Your task to perform on an android device: see tabs open on other devices in the chrome app Image 0: 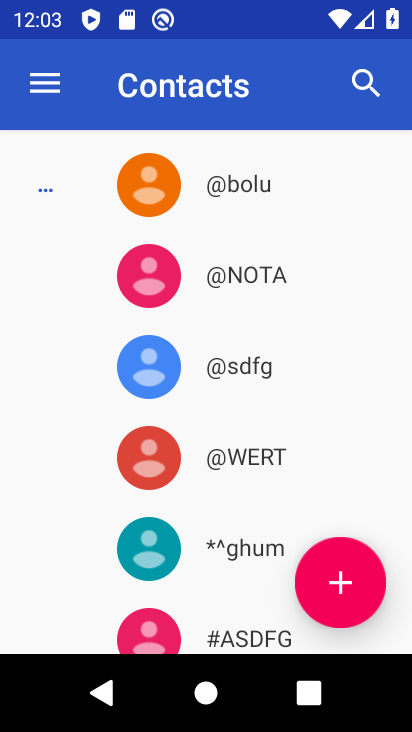
Step 0: press home button
Your task to perform on an android device: see tabs open on other devices in the chrome app Image 1: 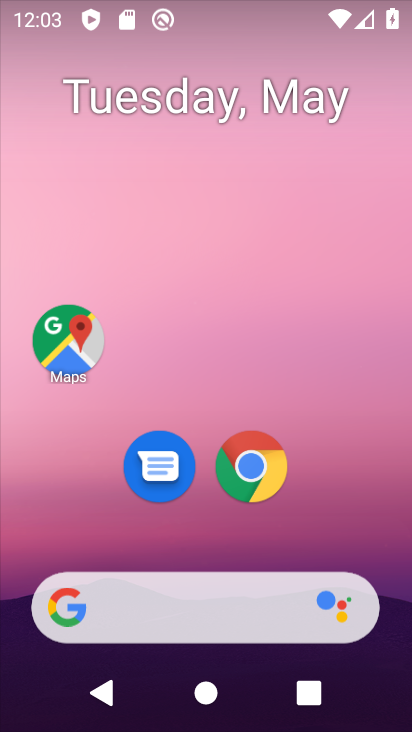
Step 1: click (243, 453)
Your task to perform on an android device: see tabs open on other devices in the chrome app Image 2: 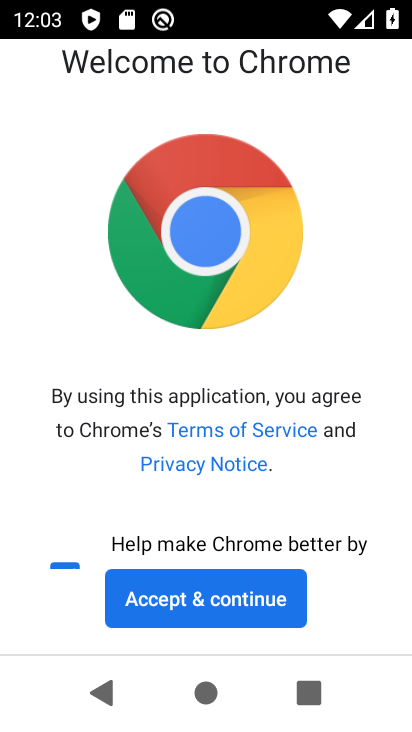
Step 2: click (276, 602)
Your task to perform on an android device: see tabs open on other devices in the chrome app Image 3: 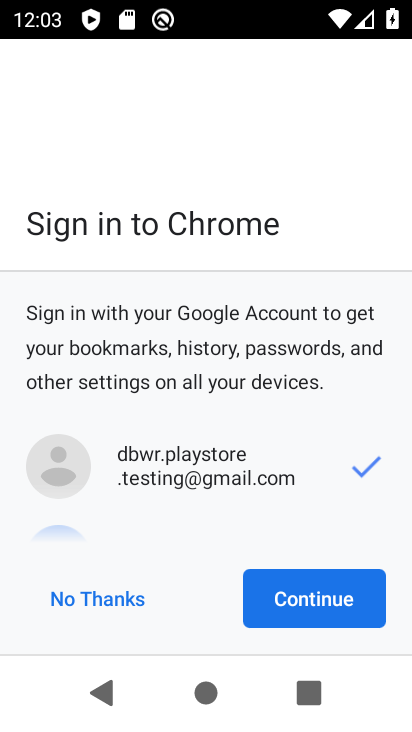
Step 3: click (276, 602)
Your task to perform on an android device: see tabs open on other devices in the chrome app Image 4: 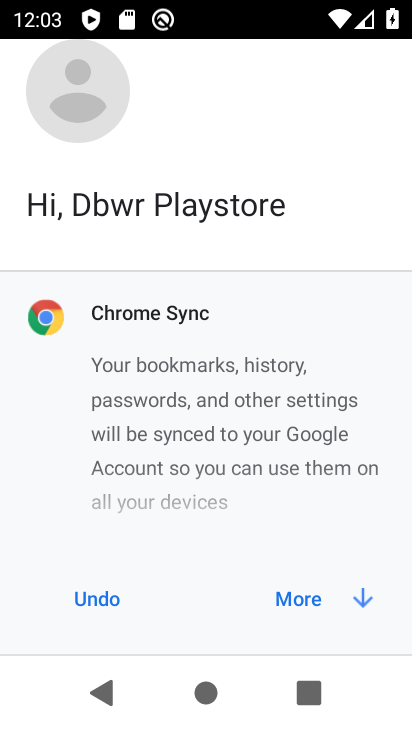
Step 4: click (276, 602)
Your task to perform on an android device: see tabs open on other devices in the chrome app Image 5: 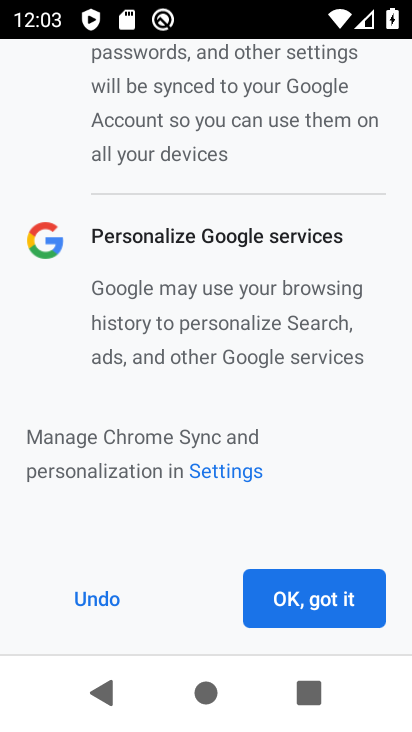
Step 5: click (276, 602)
Your task to perform on an android device: see tabs open on other devices in the chrome app Image 6: 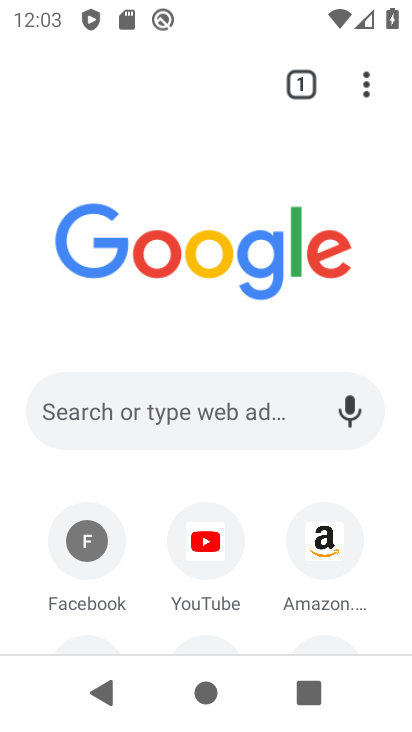
Step 6: click (364, 80)
Your task to perform on an android device: see tabs open on other devices in the chrome app Image 7: 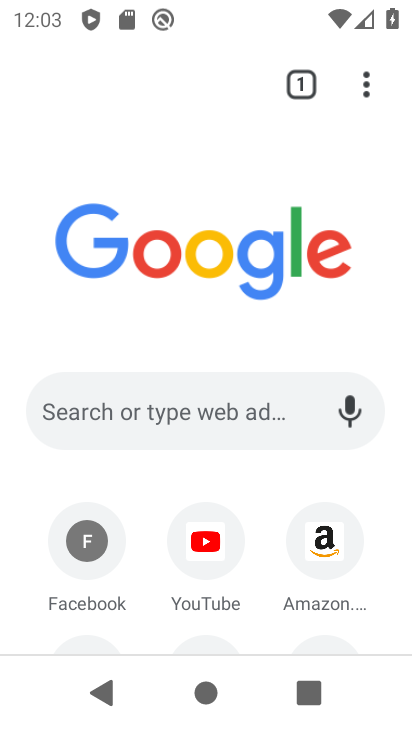
Step 7: click (369, 70)
Your task to perform on an android device: see tabs open on other devices in the chrome app Image 8: 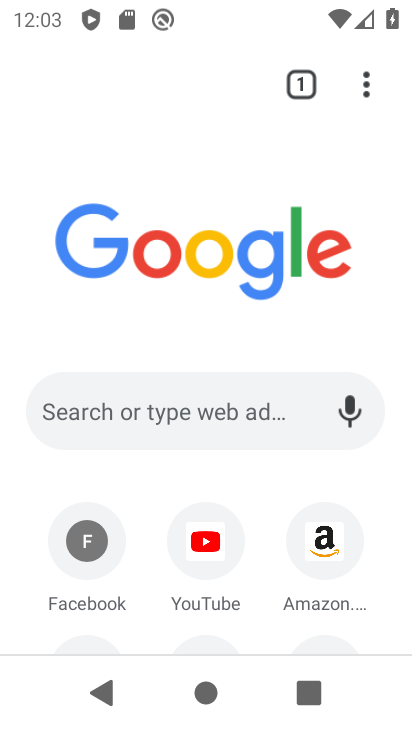
Step 8: click (362, 87)
Your task to perform on an android device: see tabs open on other devices in the chrome app Image 9: 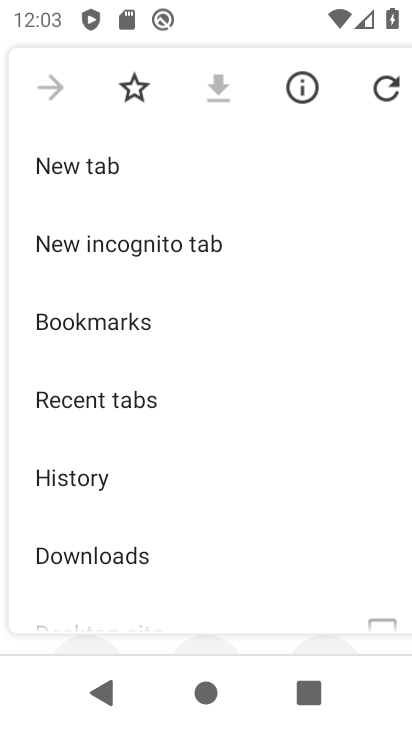
Step 9: click (97, 396)
Your task to perform on an android device: see tabs open on other devices in the chrome app Image 10: 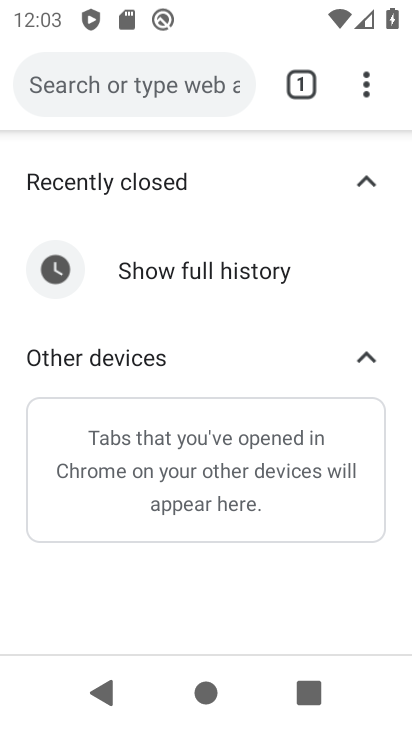
Step 10: task complete